Your task to perform on an android device: change the clock display to digital Image 0: 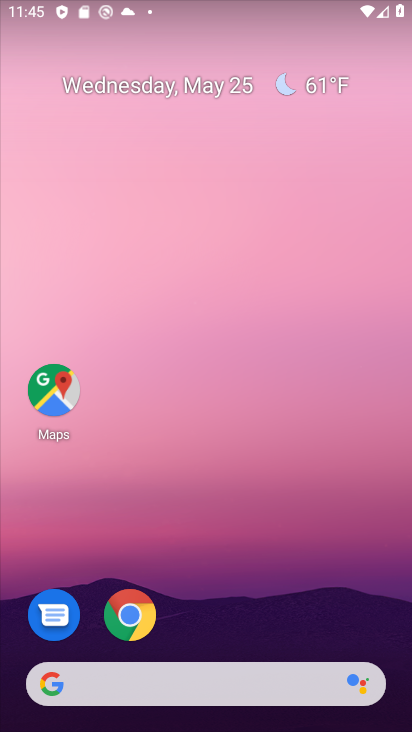
Step 0: drag from (308, 625) to (247, 74)
Your task to perform on an android device: change the clock display to digital Image 1: 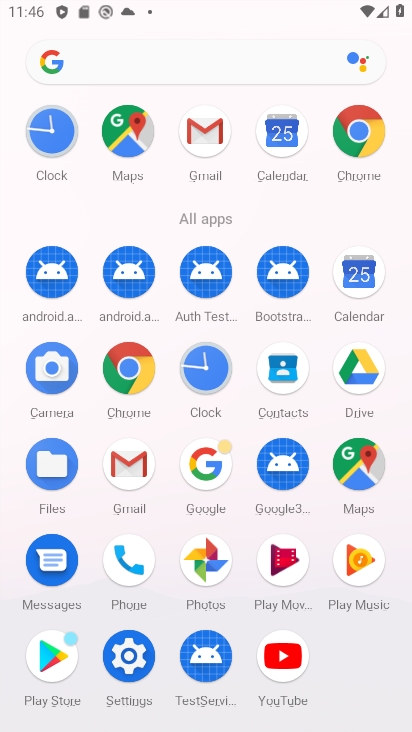
Step 1: click (207, 363)
Your task to perform on an android device: change the clock display to digital Image 2: 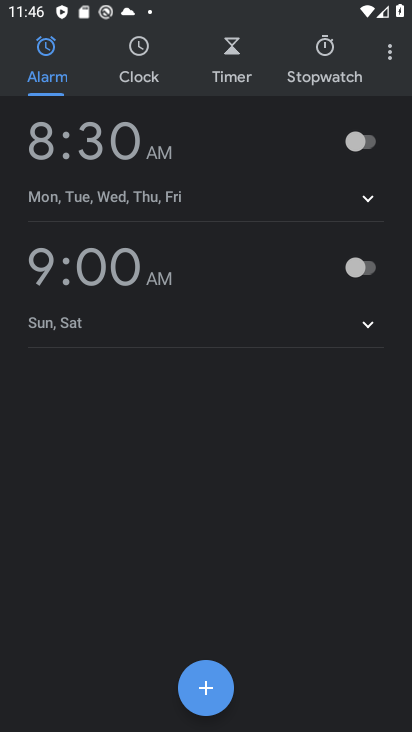
Step 2: click (394, 49)
Your task to perform on an android device: change the clock display to digital Image 3: 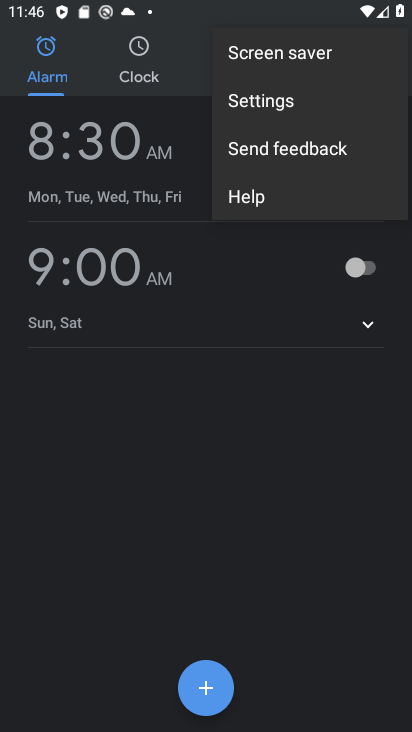
Step 3: click (316, 112)
Your task to perform on an android device: change the clock display to digital Image 4: 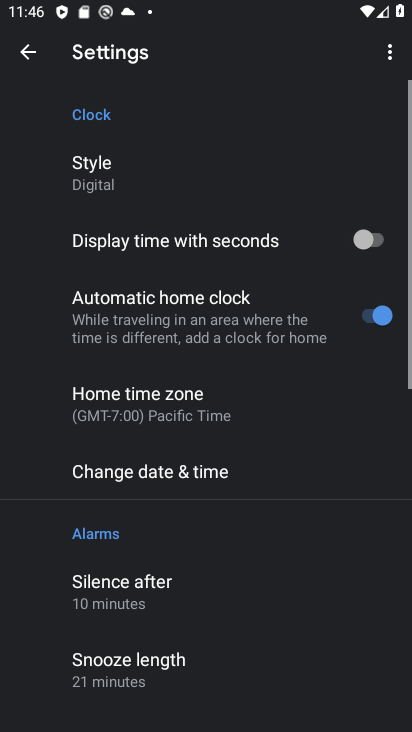
Step 4: click (209, 201)
Your task to perform on an android device: change the clock display to digital Image 5: 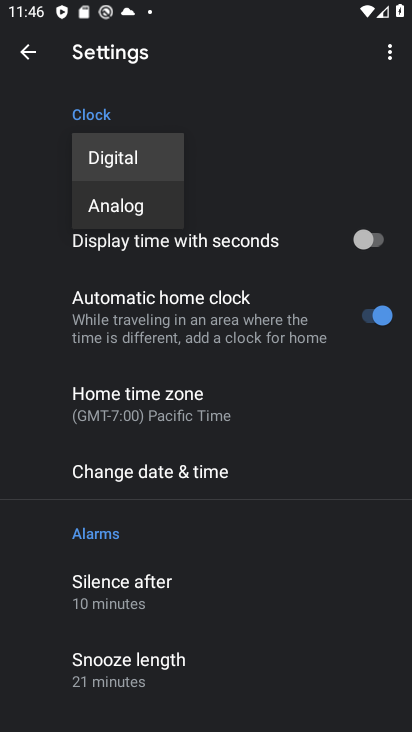
Step 5: click (134, 150)
Your task to perform on an android device: change the clock display to digital Image 6: 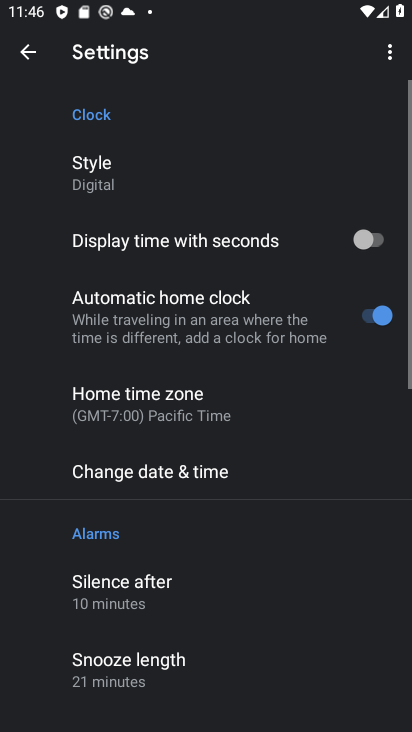
Step 6: task complete